Your task to perform on an android device: Open calendar and show me the third week of next month Image 0: 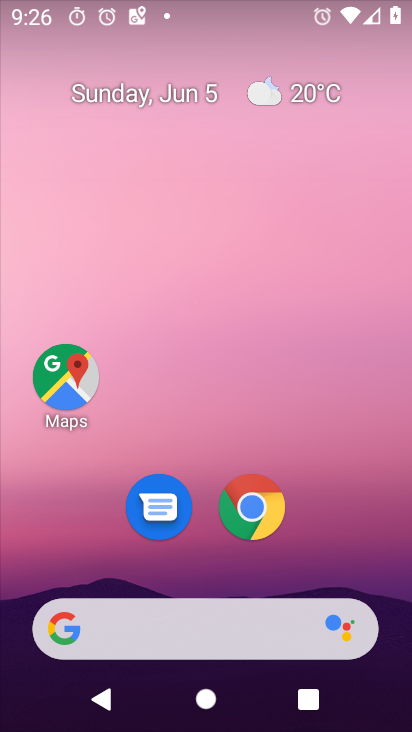
Step 0: drag from (350, 528) to (253, 26)
Your task to perform on an android device: Open calendar and show me the third week of next month Image 1: 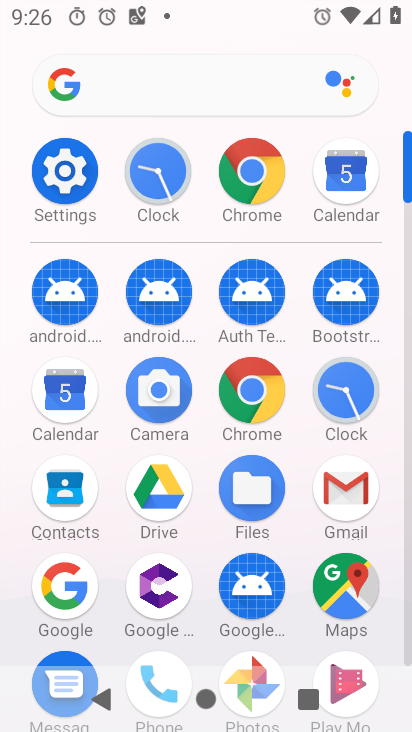
Step 1: click (344, 168)
Your task to perform on an android device: Open calendar and show me the third week of next month Image 2: 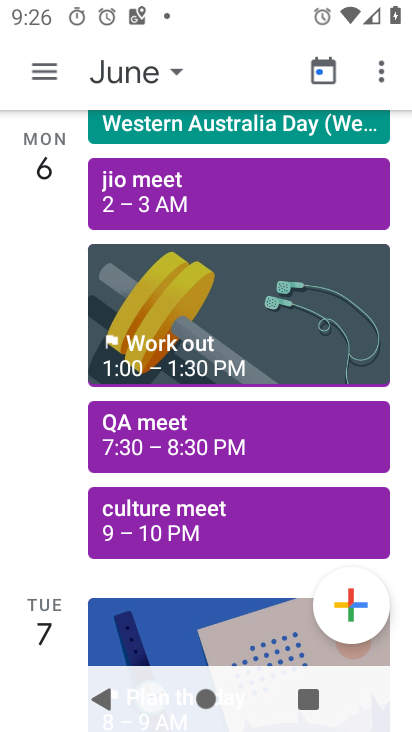
Step 2: click (128, 67)
Your task to perform on an android device: Open calendar and show me the third week of next month Image 3: 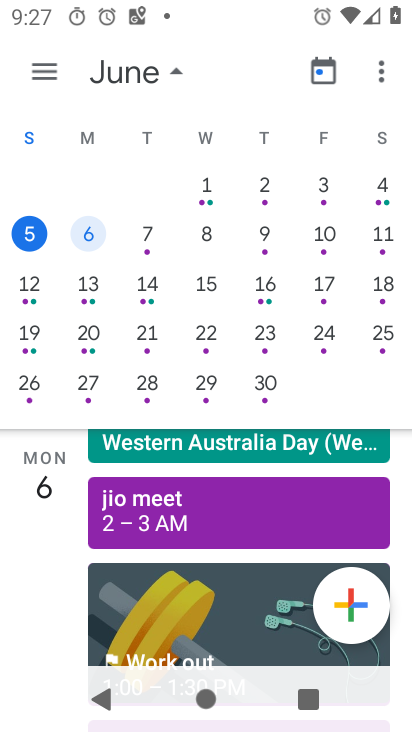
Step 3: drag from (374, 254) to (0, 262)
Your task to perform on an android device: Open calendar and show me the third week of next month Image 4: 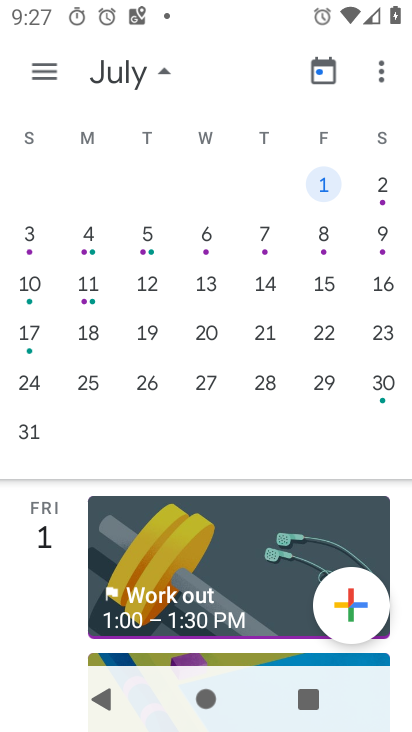
Step 4: click (34, 327)
Your task to perform on an android device: Open calendar and show me the third week of next month Image 5: 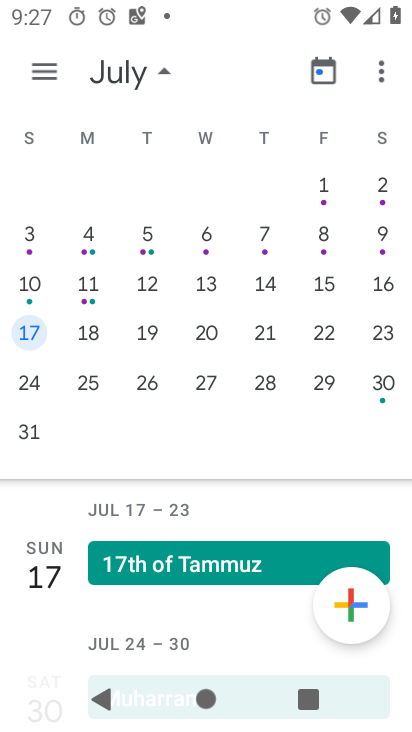
Step 5: click (51, 65)
Your task to perform on an android device: Open calendar and show me the third week of next month Image 6: 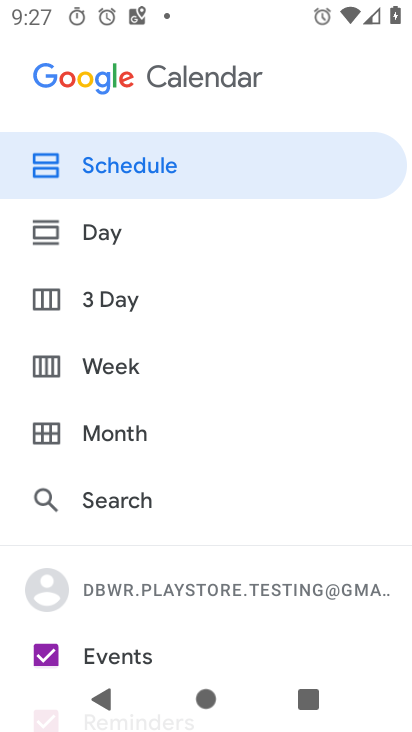
Step 6: click (120, 359)
Your task to perform on an android device: Open calendar and show me the third week of next month Image 7: 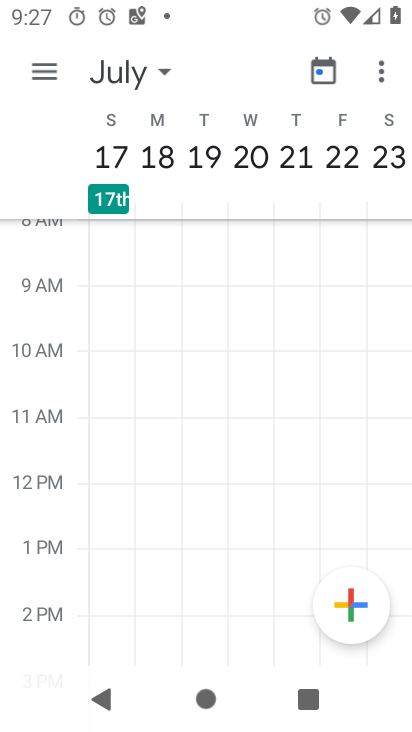
Step 7: task complete